Your task to perform on an android device: Go to internet settings Image 0: 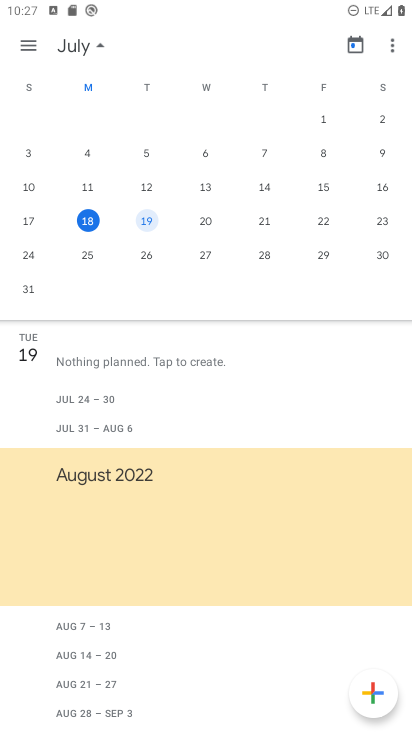
Step 0: press home button
Your task to perform on an android device: Go to internet settings Image 1: 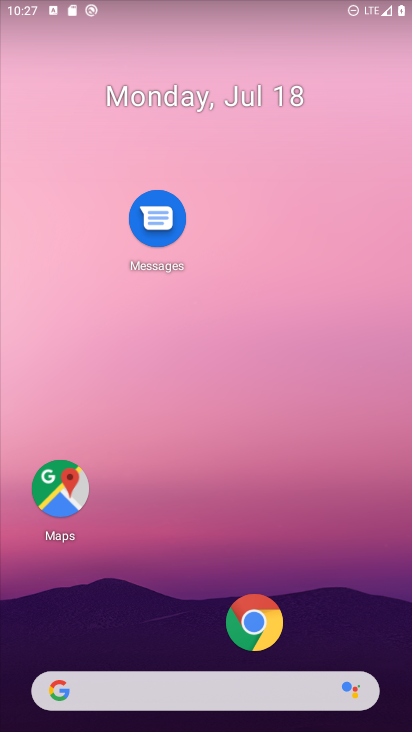
Step 1: drag from (161, 673) to (207, 13)
Your task to perform on an android device: Go to internet settings Image 2: 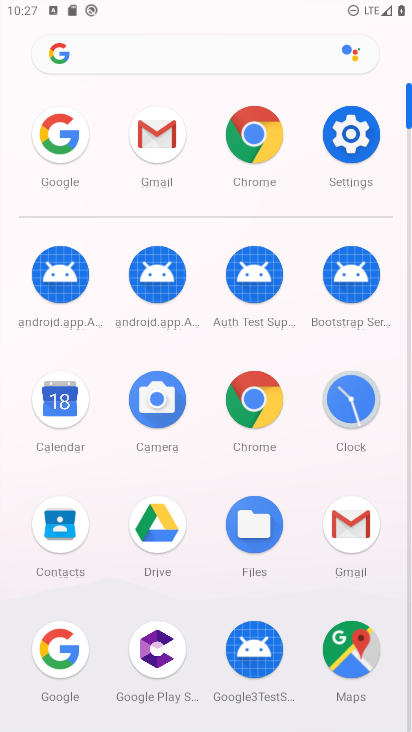
Step 2: click (359, 161)
Your task to perform on an android device: Go to internet settings Image 3: 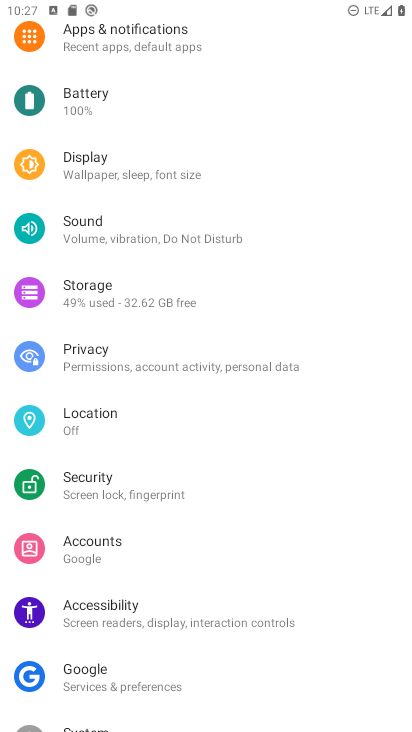
Step 3: drag from (183, 251) to (148, 694)
Your task to perform on an android device: Go to internet settings Image 4: 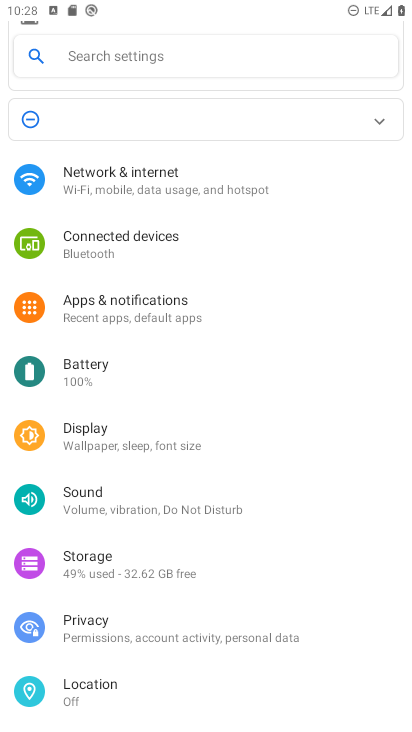
Step 4: click (124, 204)
Your task to perform on an android device: Go to internet settings Image 5: 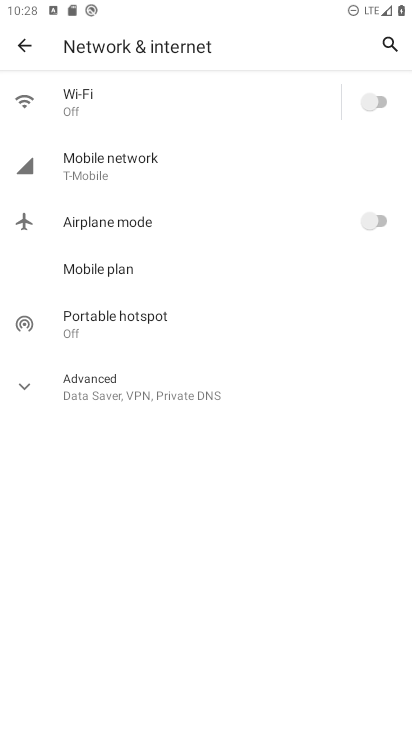
Step 5: click (142, 170)
Your task to perform on an android device: Go to internet settings Image 6: 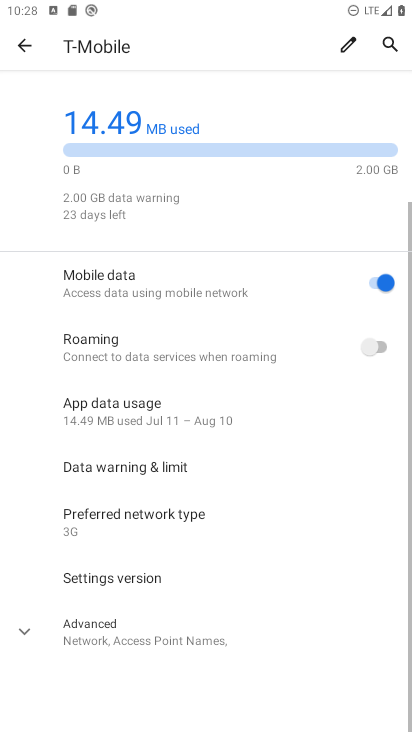
Step 6: task complete